Your task to perform on an android device: Go to Reddit.com Image 0: 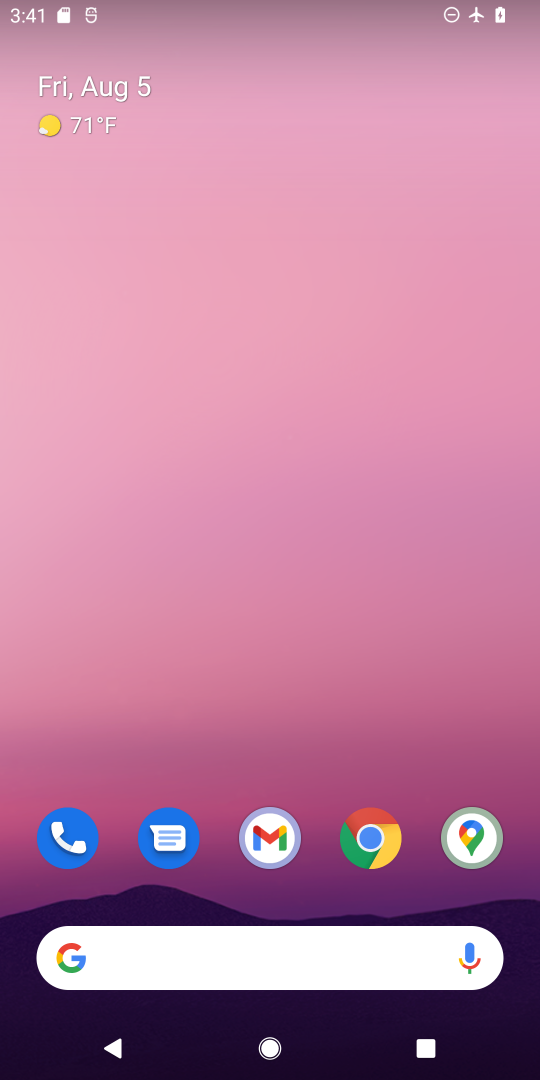
Step 0: click (365, 841)
Your task to perform on an android device: Go to Reddit.com Image 1: 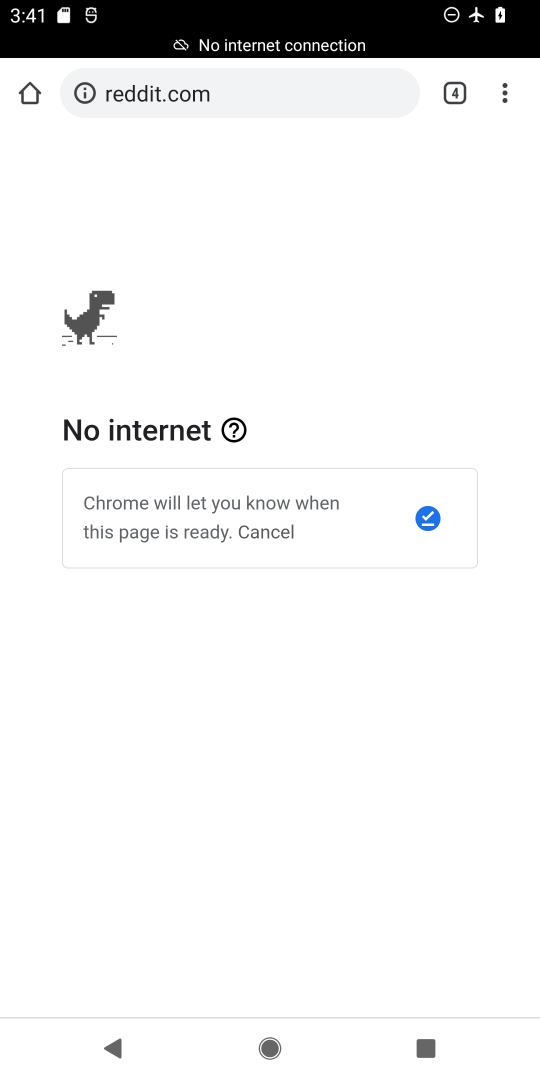
Step 1: click (228, 110)
Your task to perform on an android device: Go to Reddit.com Image 2: 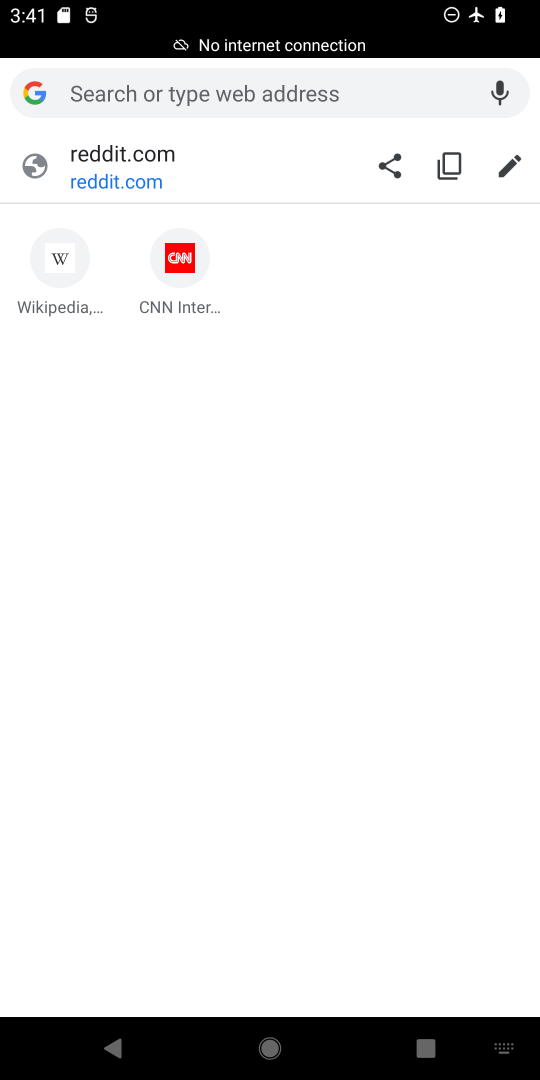
Step 2: task complete